Your task to perform on an android device: turn off translation in the chrome app Image 0: 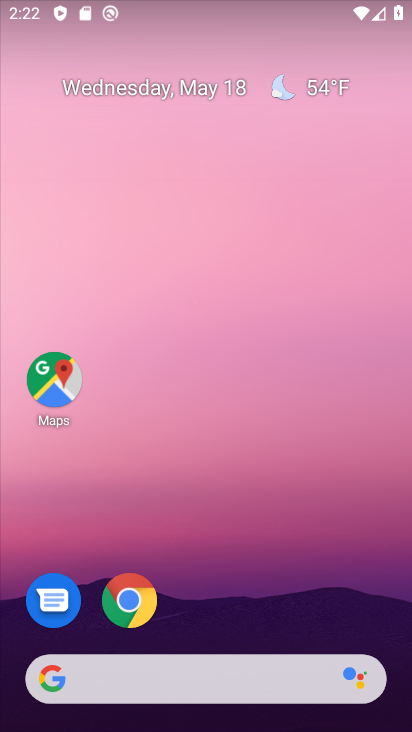
Step 0: click (131, 601)
Your task to perform on an android device: turn off translation in the chrome app Image 1: 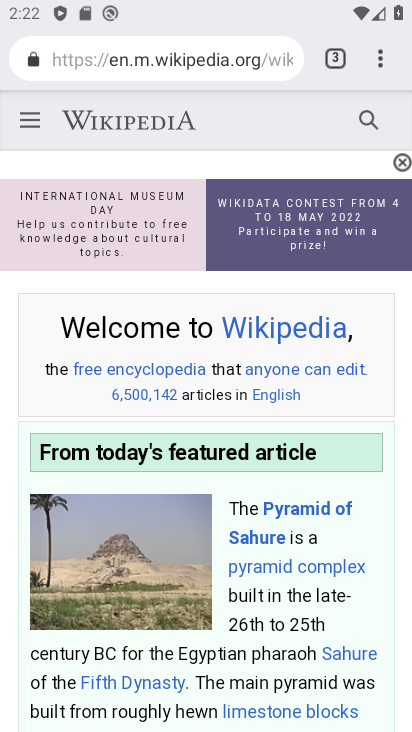
Step 1: drag from (376, 60) to (231, 631)
Your task to perform on an android device: turn off translation in the chrome app Image 2: 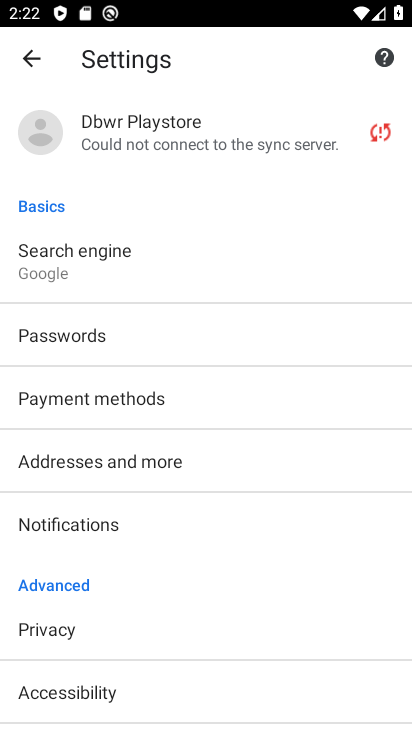
Step 2: drag from (159, 596) to (285, 307)
Your task to perform on an android device: turn off translation in the chrome app Image 3: 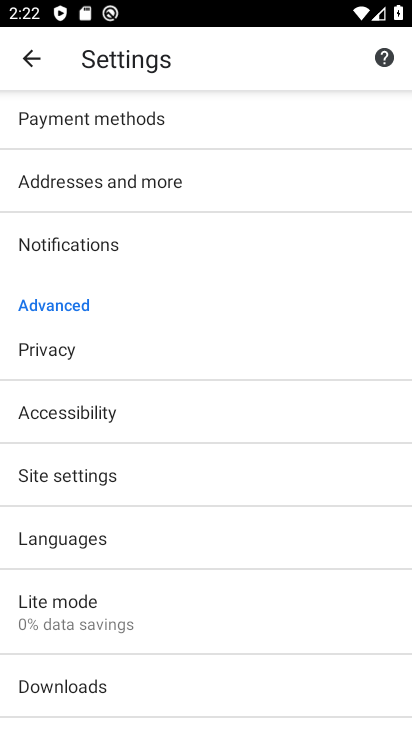
Step 3: click (108, 532)
Your task to perform on an android device: turn off translation in the chrome app Image 4: 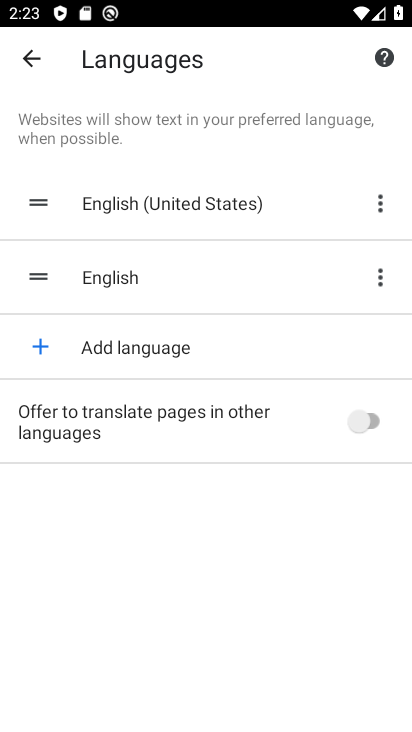
Step 4: task complete